Your task to perform on an android device: Go to calendar. Show me events next week Image 0: 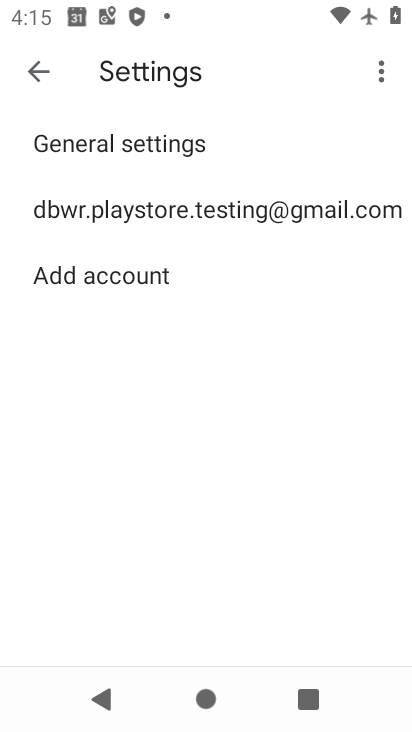
Step 0: press home button
Your task to perform on an android device: Go to calendar. Show me events next week Image 1: 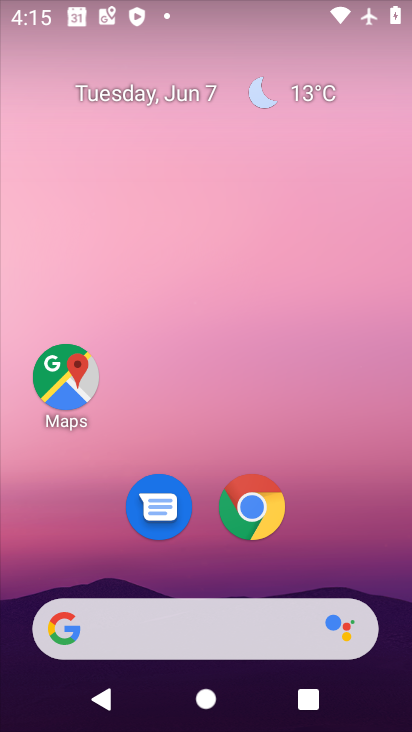
Step 1: drag from (348, 544) to (298, 12)
Your task to perform on an android device: Go to calendar. Show me events next week Image 2: 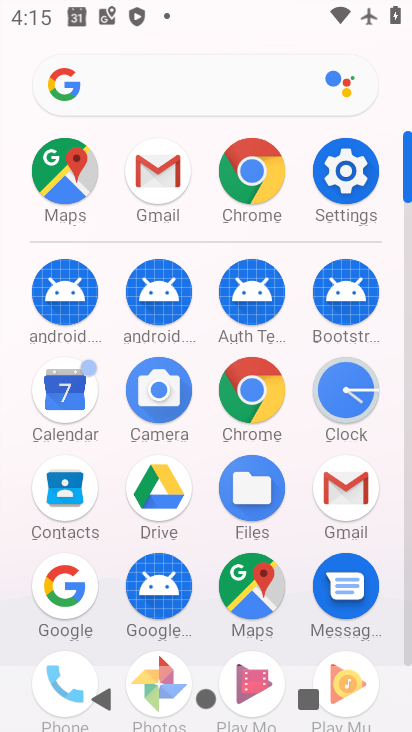
Step 2: drag from (13, 575) to (17, 194)
Your task to perform on an android device: Go to calendar. Show me events next week Image 3: 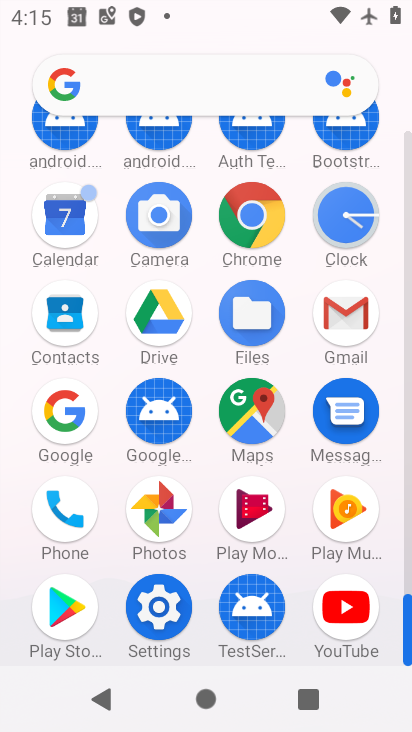
Step 3: drag from (4, 176) to (18, 458)
Your task to perform on an android device: Go to calendar. Show me events next week Image 4: 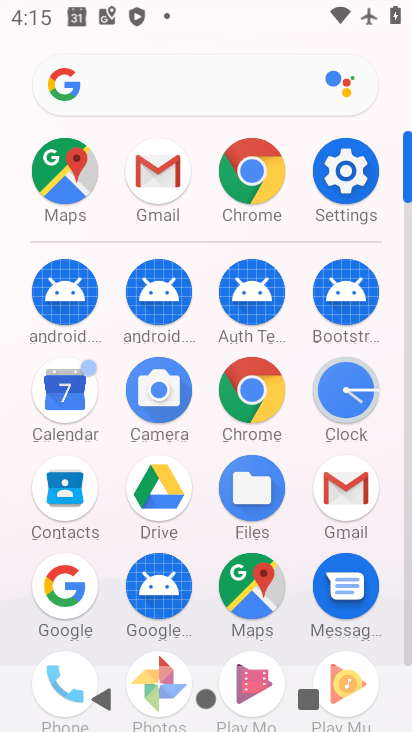
Step 4: click (56, 393)
Your task to perform on an android device: Go to calendar. Show me events next week Image 5: 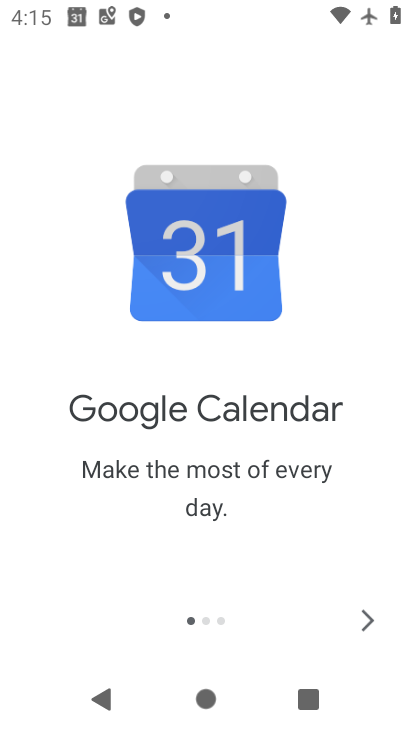
Step 5: click (363, 617)
Your task to perform on an android device: Go to calendar. Show me events next week Image 6: 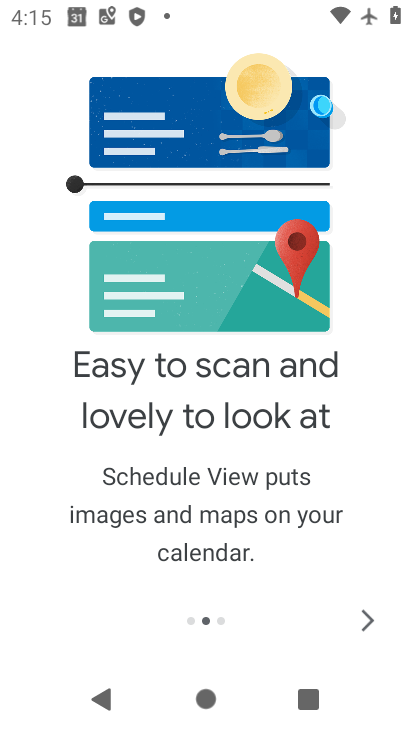
Step 6: click (363, 617)
Your task to perform on an android device: Go to calendar. Show me events next week Image 7: 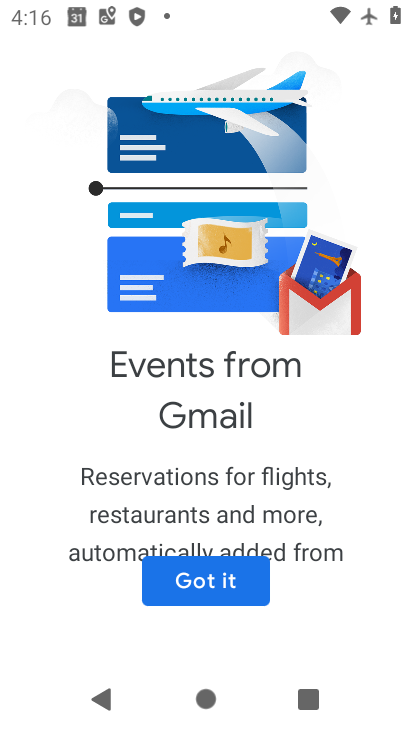
Step 7: click (216, 580)
Your task to perform on an android device: Go to calendar. Show me events next week Image 8: 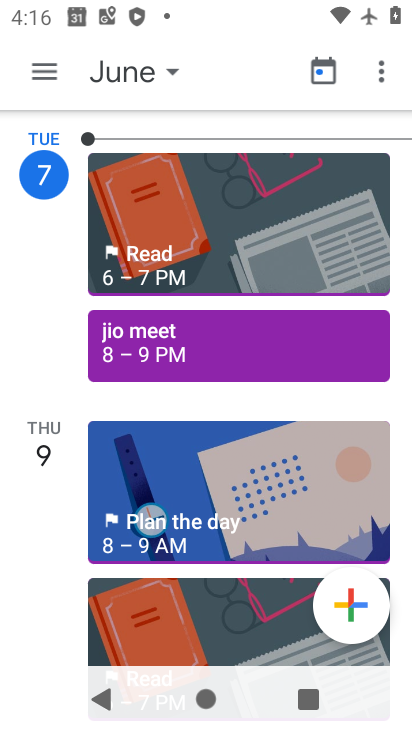
Step 8: click (135, 64)
Your task to perform on an android device: Go to calendar. Show me events next week Image 9: 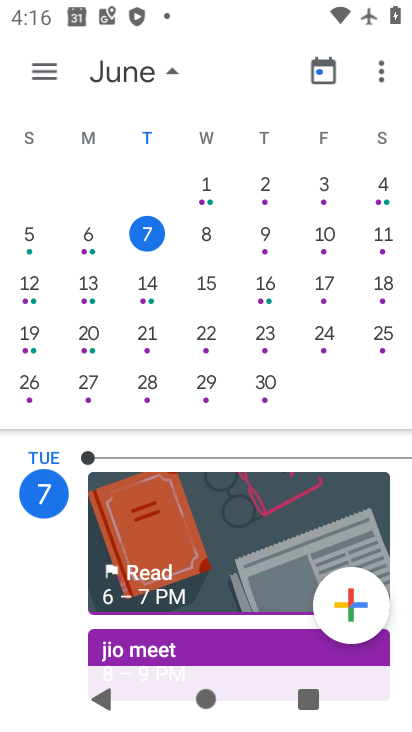
Step 9: click (40, 277)
Your task to perform on an android device: Go to calendar. Show me events next week Image 10: 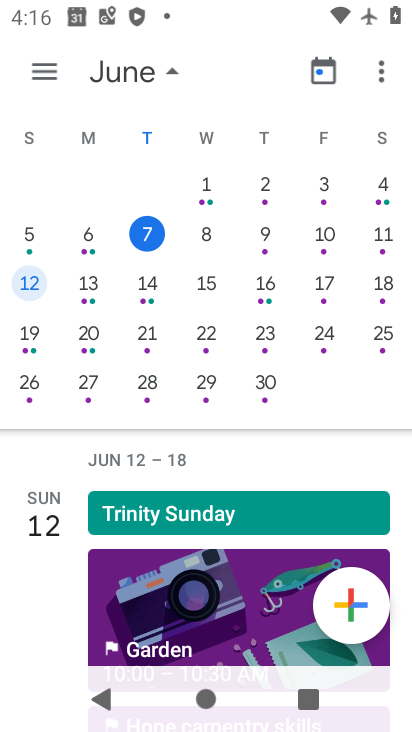
Step 10: click (43, 78)
Your task to perform on an android device: Go to calendar. Show me events next week Image 11: 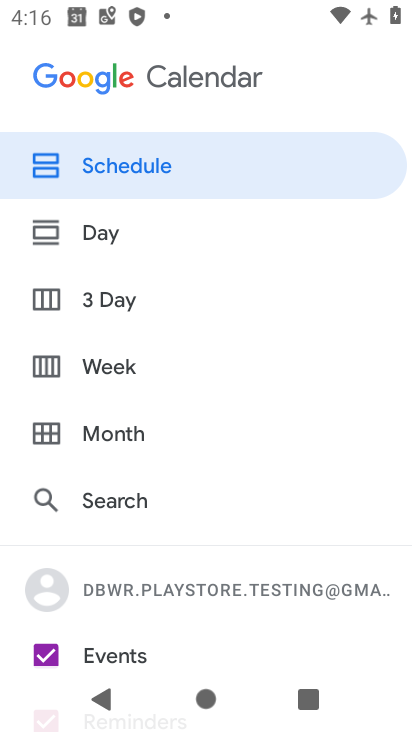
Step 11: click (134, 359)
Your task to perform on an android device: Go to calendar. Show me events next week Image 12: 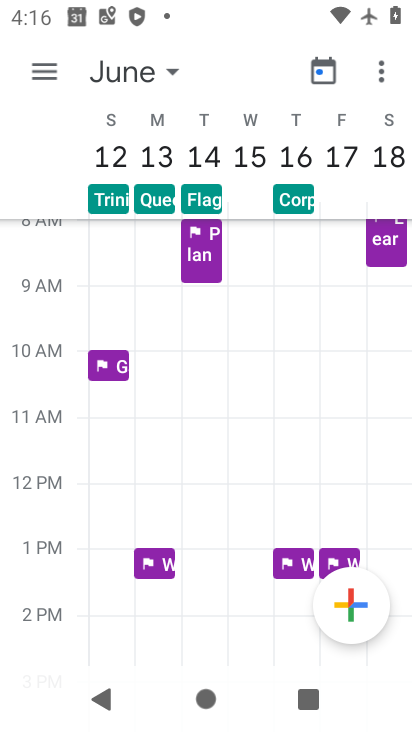
Step 12: task complete